Your task to perform on an android device: Toggle the flashlight Image 0: 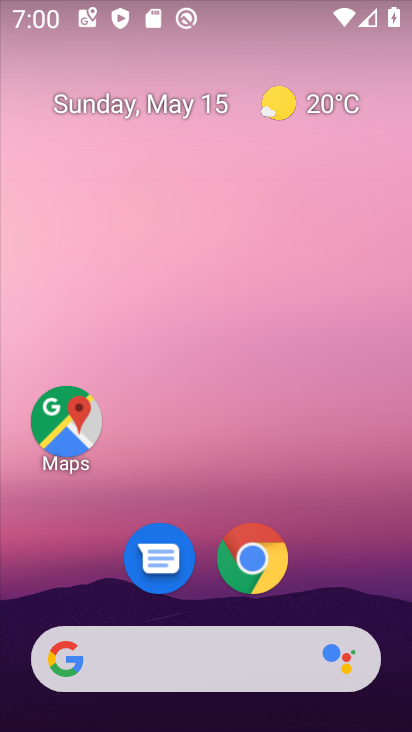
Step 0: drag from (339, 512) to (194, 2)
Your task to perform on an android device: Toggle the flashlight Image 1: 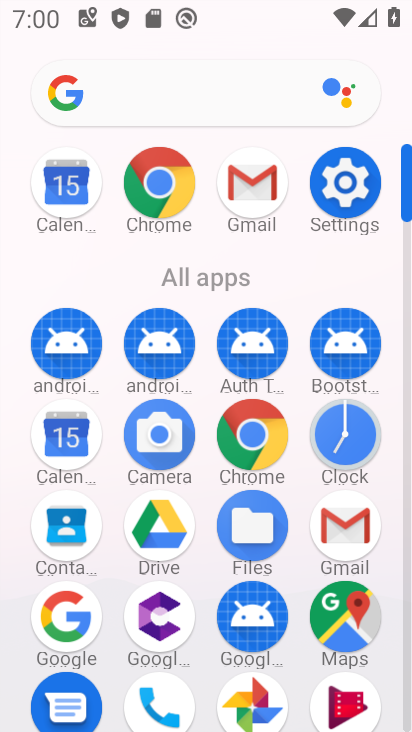
Step 1: click (339, 188)
Your task to perform on an android device: Toggle the flashlight Image 2: 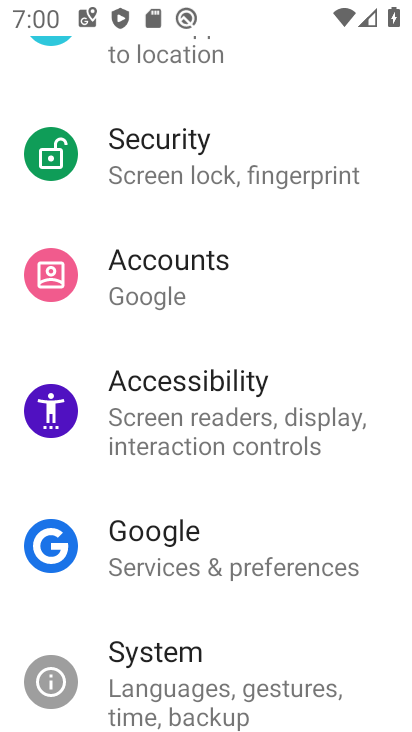
Step 2: task complete